Your task to perform on an android device: Go to Google maps Image 0: 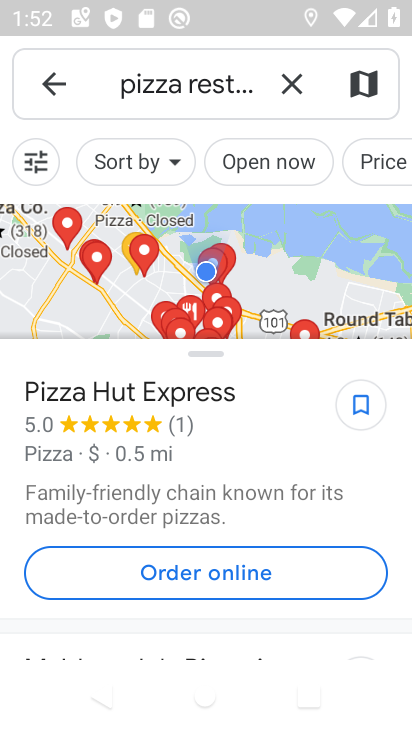
Step 0: task complete